Your task to perform on an android device: set default search engine in the chrome app Image 0: 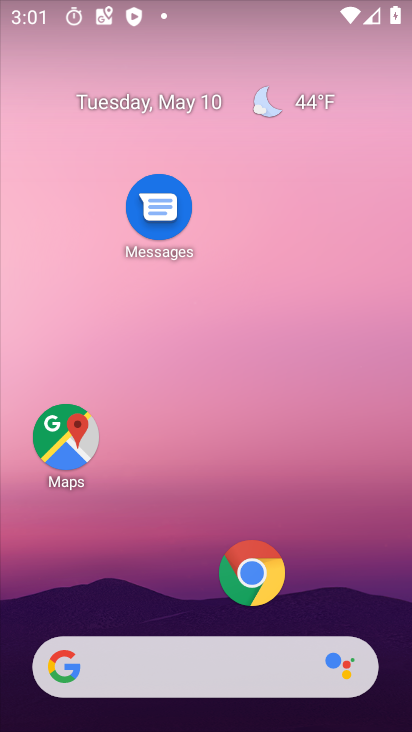
Step 0: click (247, 573)
Your task to perform on an android device: set default search engine in the chrome app Image 1: 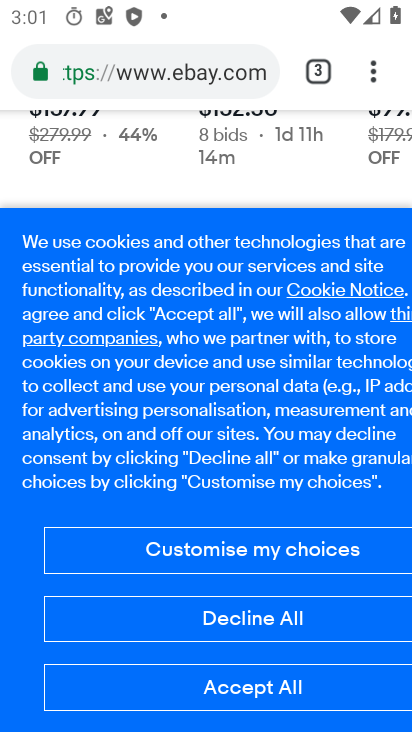
Step 1: click (380, 58)
Your task to perform on an android device: set default search engine in the chrome app Image 2: 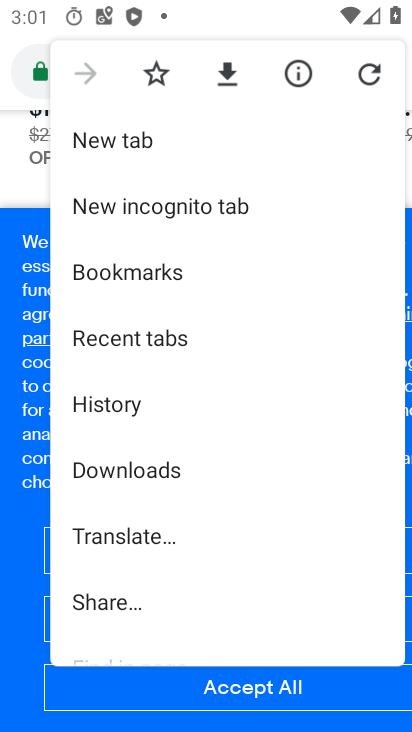
Step 2: drag from (171, 572) to (241, 303)
Your task to perform on an android device: set default search engine in the chrome app Image 3: 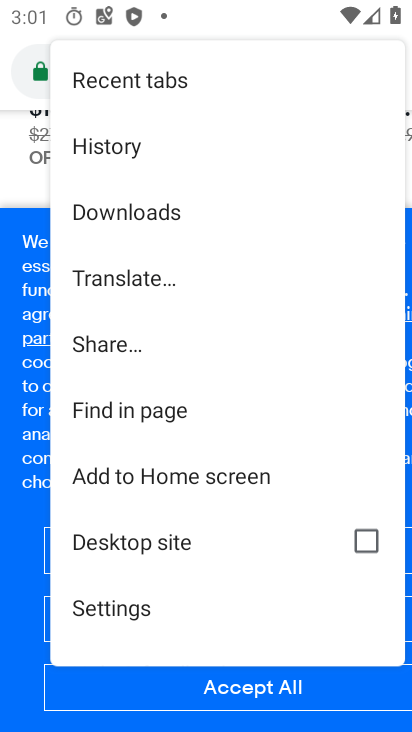
Step 3: click (128, 595)
Your task to perform on an android device: set default search engine in the chrome app Image 4: 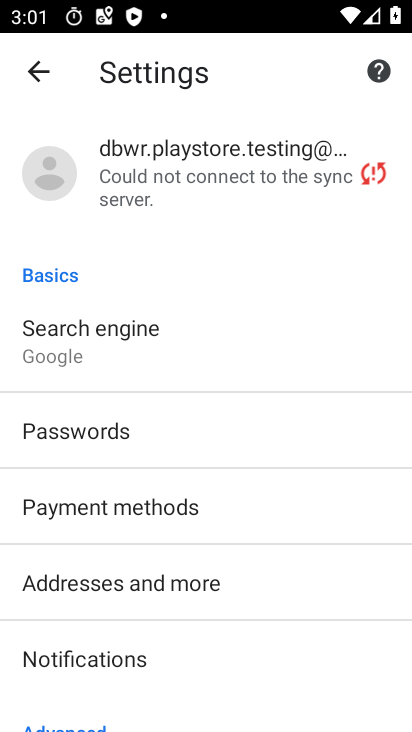
Step 4: click (180, 334)
Your task to perform on an android device: set default search engine in the chrome app Image 5: 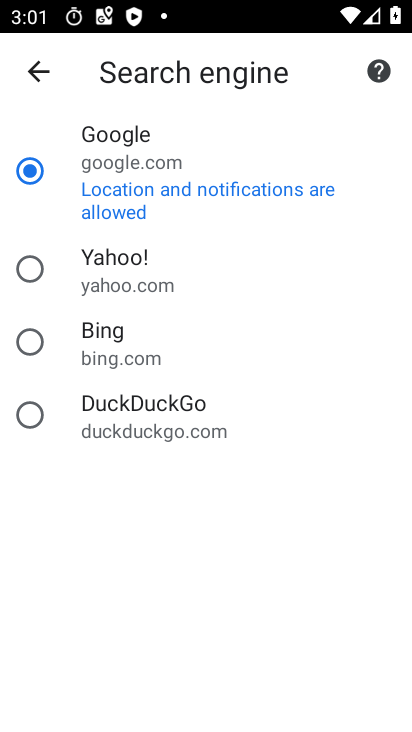
Step 5: click (91, 334)
Your task to perform on an android device: set default search engine in the chrome app Image 6: 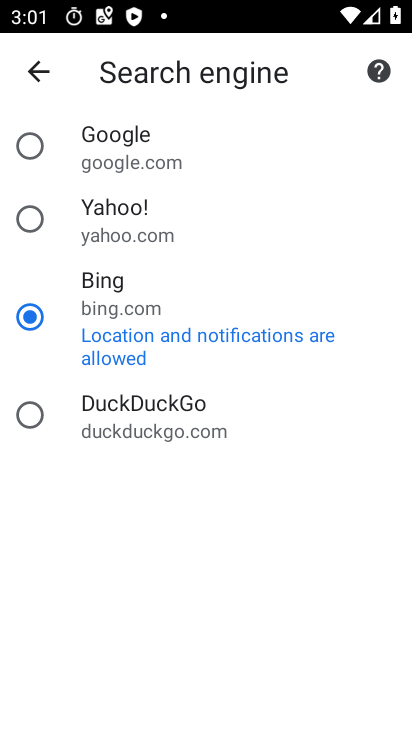
Step 6: task complete